Your task to perform on an android device: turn off notifications in google photos Image 0: 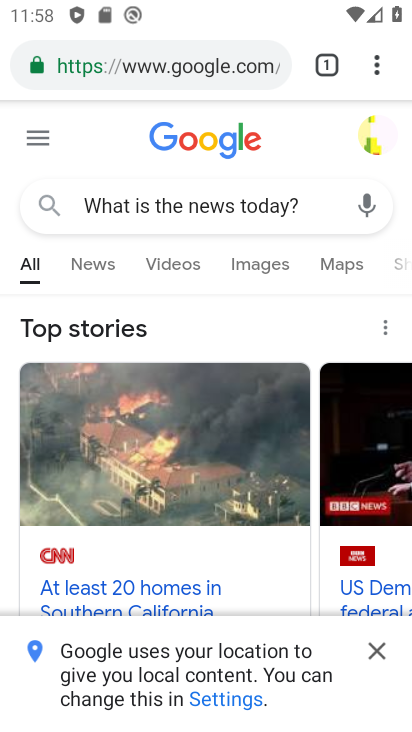
Step 0: press home button
Your task to perform on an android device: turn off notifications in google photos Image 1: 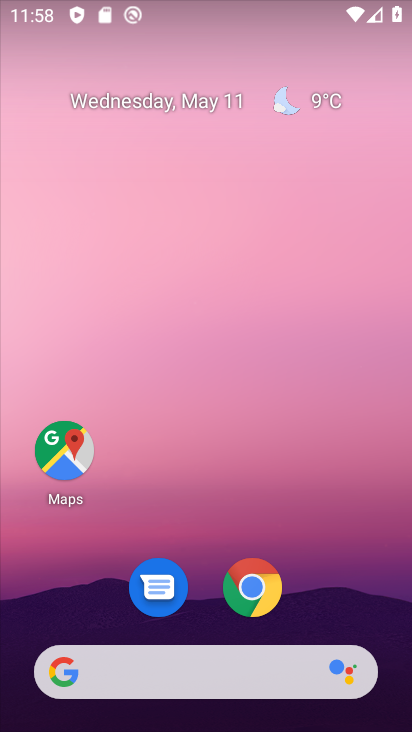
Step 1: drag from (292, 608) to (295, 302)
Your task to perform on an android device: turn off notifications in google photos Image 2: 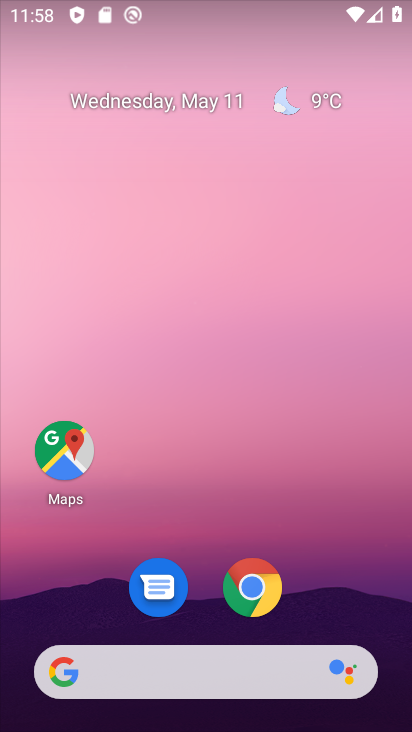
Step 2: drag from (206, 603) to (226, 226)
Your task to perform on an android device: turn off notifications in google photos Image 3: 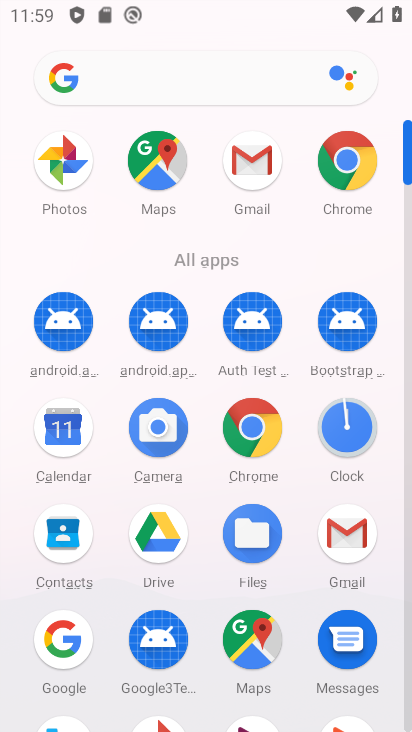
Step 3: click (65, 159)
Your task to perform on an android device: turn off notifications in google photos Image 4: 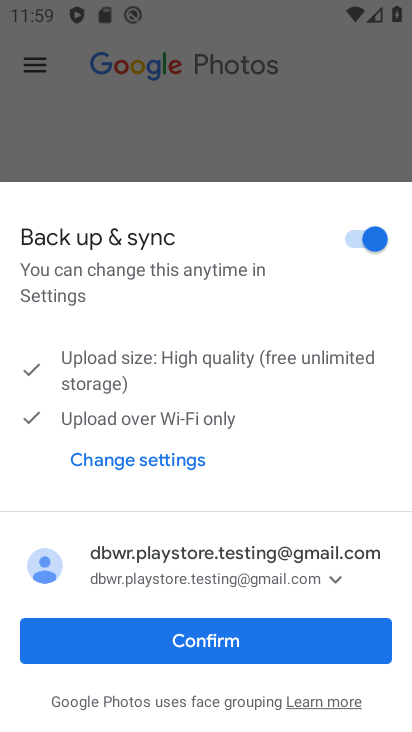
Step 4: click (239, 638)
Your task to perform on an android device: turn off notifications in google photos Image 5: 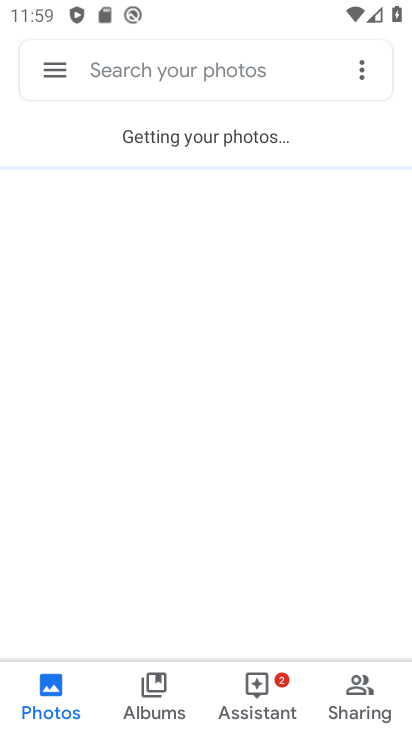
Step 5: click (35, 61)
Your task to perform on an android device: turn off notifications in google photos Image 6: 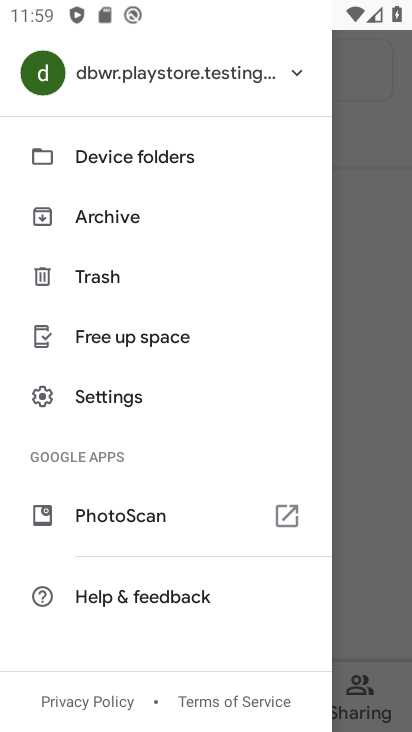
Step 6: click (144, 395)
Your task to perform on an android device: turn off notifications in google photos Image 7: 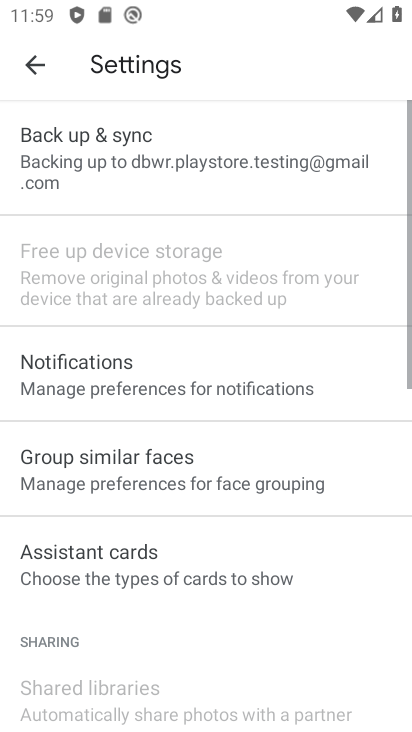
Step 7: click (132, 383)
Your task to perform on an android device: turn off notifications in google photos Image 8: 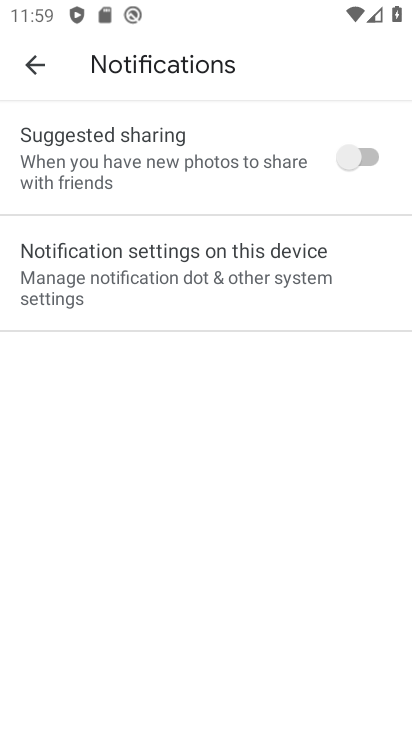
Step 8: click (165, 267)
Your task to perform on an android device: turn off notifications in google photos Image 9: 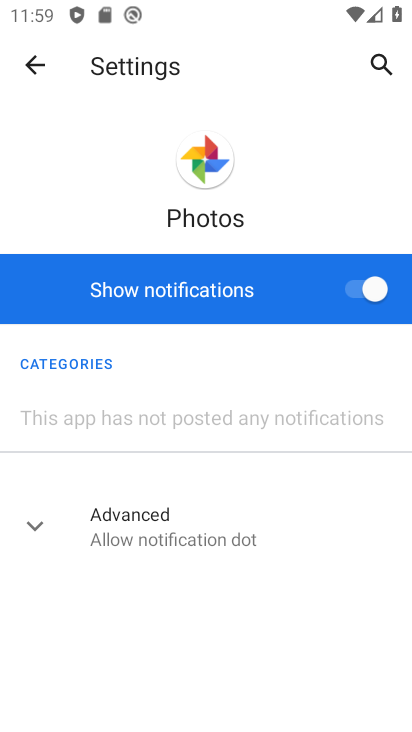
Step 9: click (366, 304)
Your task to perform on an android device: turn off notifications in google photos Image 10: 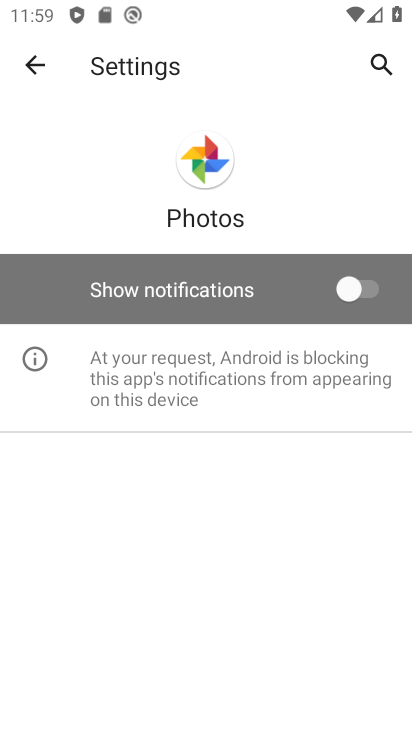
Step 10: task complete